Your task to perform on an android device: Open the Play Movies app and select the watchlist tab. Image 0: 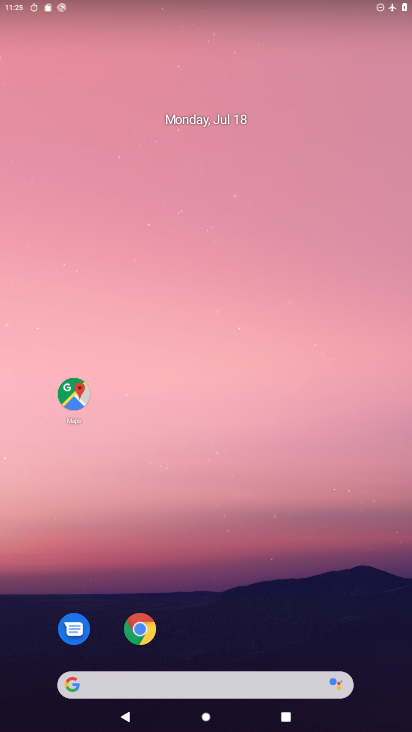
Step 0: click (212, 38)
Your task to perform on an android device: Open the Play Movies app and select the watchlist tab. Image 1: 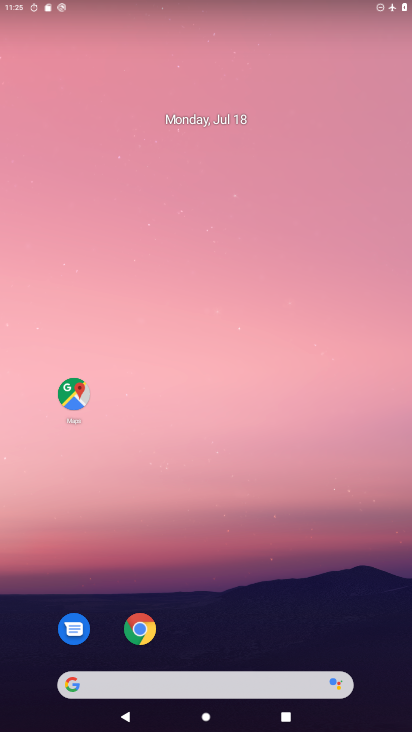
Step 1: drag from (327, 531) to (275, 23)
Your task to perform on an android device: Open the Play Movies app and select the watchlist tab. Image 2: 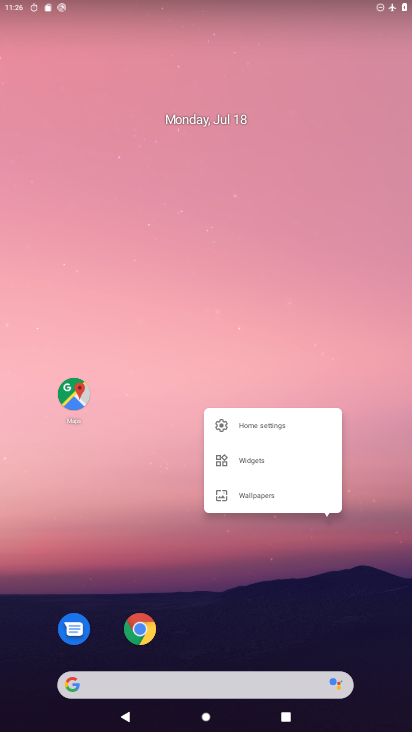
Step 2: click (321, 0)
Your task to perform on an android device: Open the Play Movies app and select the watchlist tab. Image 3: 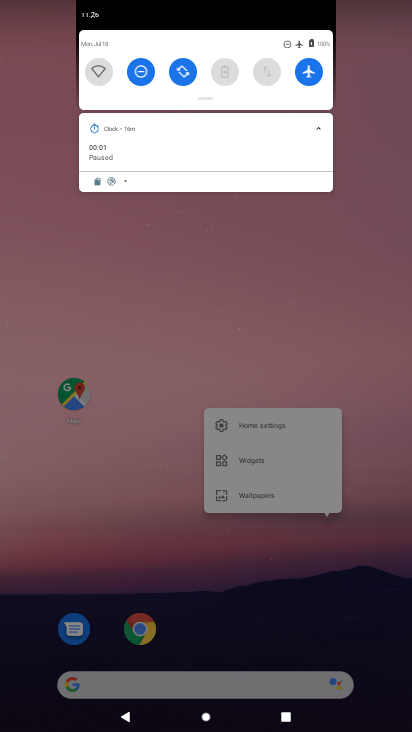
Step 3: click (336, 328)
Your task to perform on an android device: Open the Play Movies app and select the watchlist tab. Image 4: 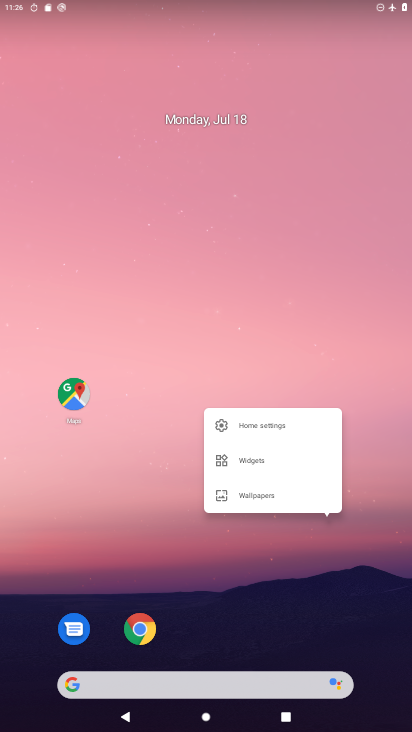
Step 4: click (333, 327)
Your task to perform on an android device: Open the Play Movies app and select the watchlist tab. Image 5: 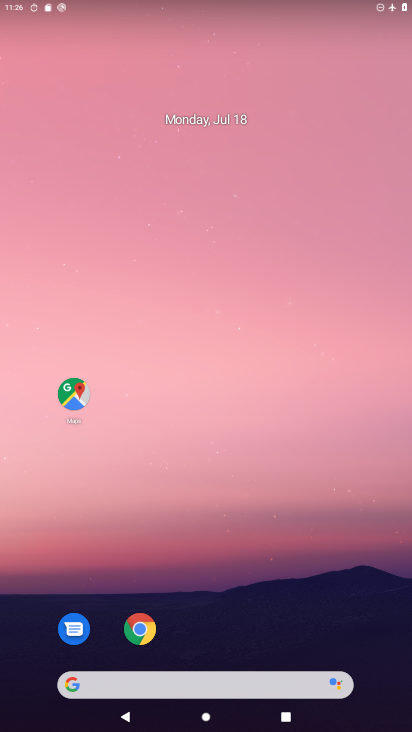
Step 5: click (252, 322)
Your task to perform on an android device: Open the Play Movies app and select the watchlist tab. Image 6: 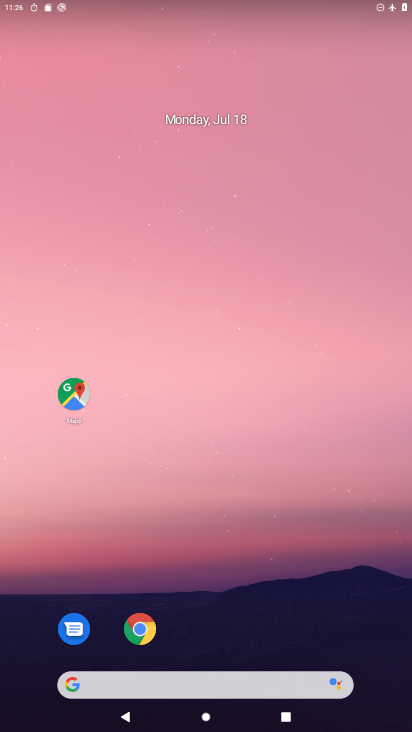
Step 6: drag from (350, 657) to (277, 51)
Your task to perform on an android device: Open the Play Movies app and select the watchlist tab. Image 7: 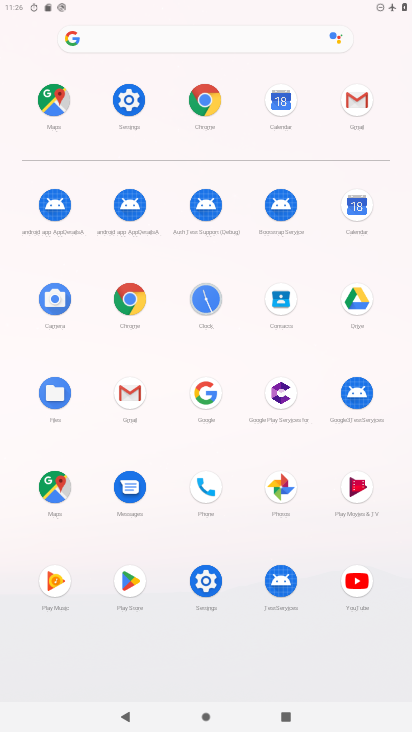
Step 7: click (353, 492)
Your task to perform on an android device: Open the Play Movies app and select the watchlist tab. Image 8: 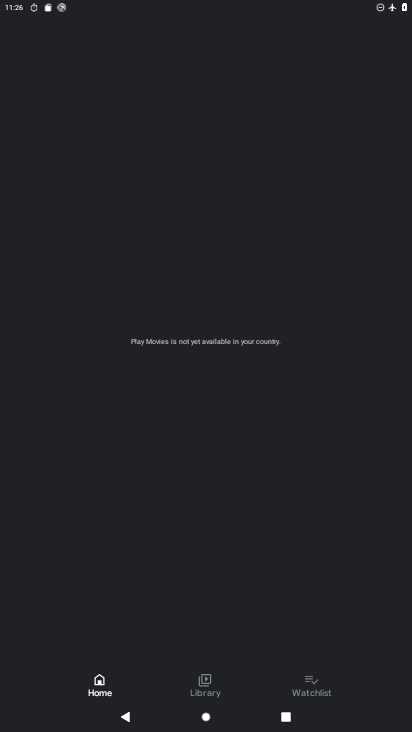
Step 8: click (307, 682)
Your task to perform on an android device: Open the Play Movies app and select the watchlist tab. Image 9: 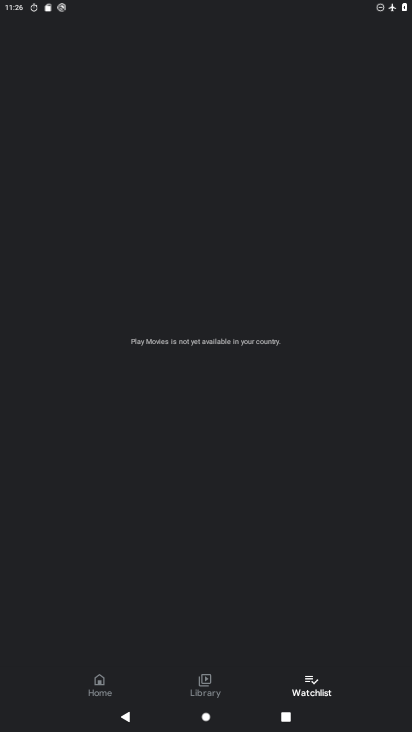
Step 9: task complete